Your task to perform on an android device: What's on my calendar tomorrow? Image 0: 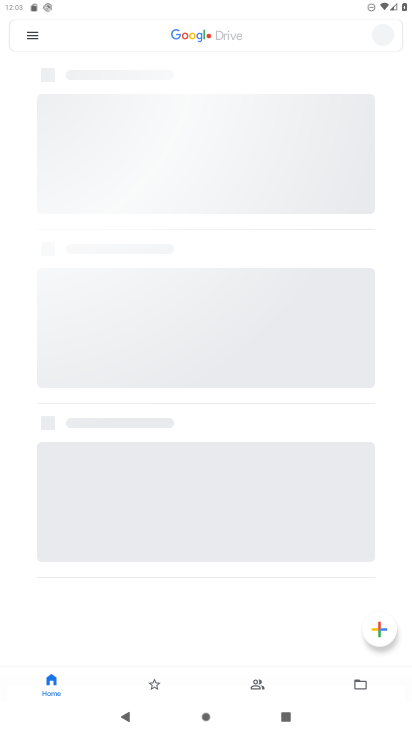
Step 0: drag from (187, 610) to (358, 2)
Your task to perform on an android device: What's on my calendar tomorrow? Image 1: 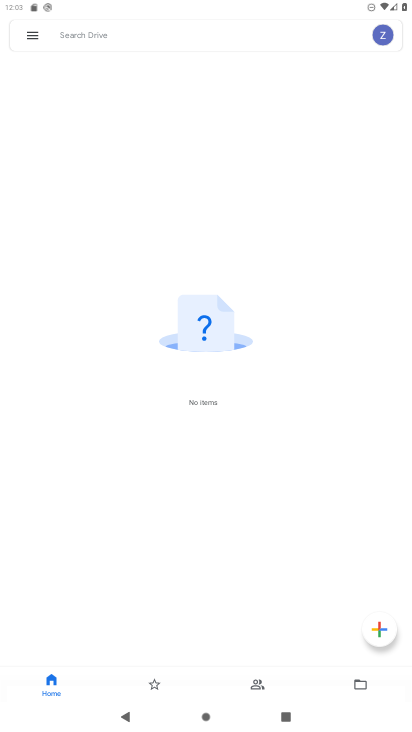
Step 1: press home button
Your task to perform on an android device: What's on my calendar tomorrow? Image 2: 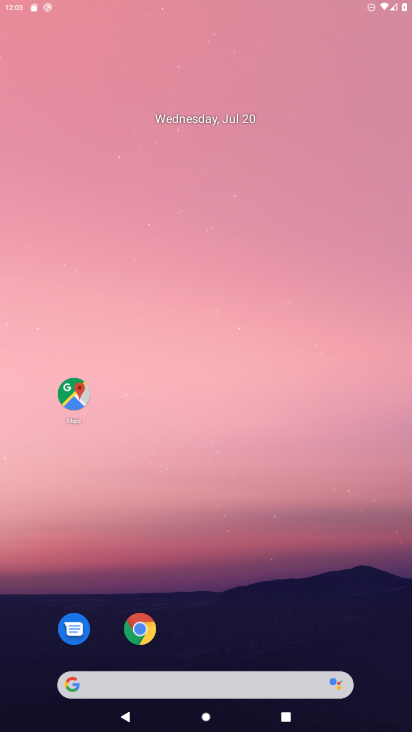
Step 2: drag from (210, 548) to (225, 28)
Your task to perform on an android device: What's on my calendar tomorrow? Image 3: 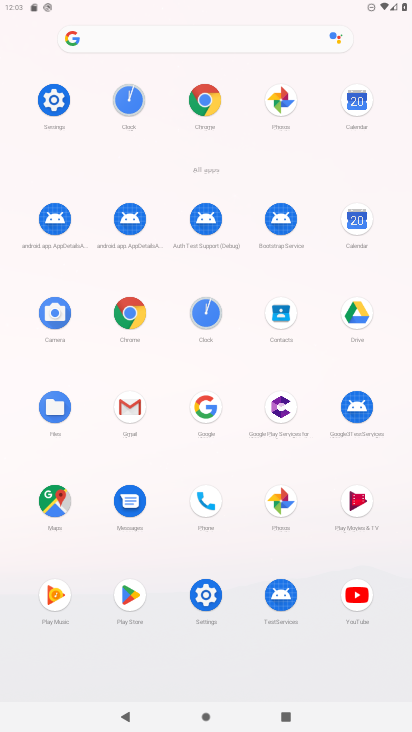
Step 3: click (354, 218)
Your task to perform on an android device: What's on my calendar tomorrow? Image 4: 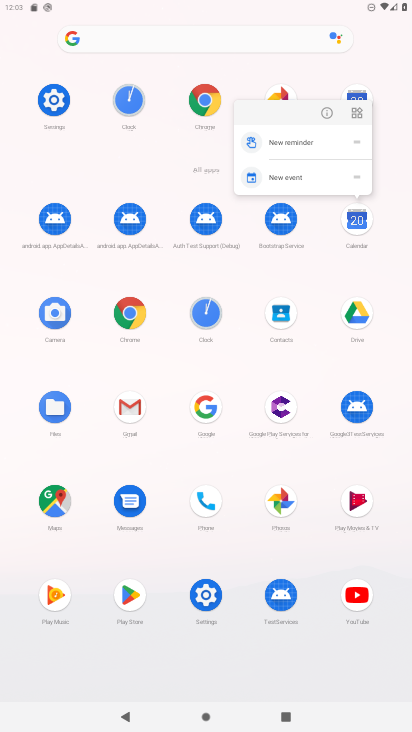
Step 4: click (318, 112)
Your task to perform on an android device: What's on my calendar tomorrow? Image 5: 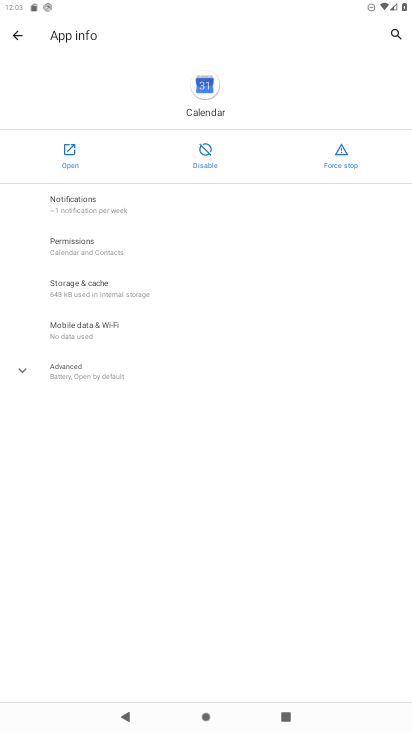
Step 5: click (75, 164)
Your task to perform on an android device: What's on my calendar tomorrow? Image 6: 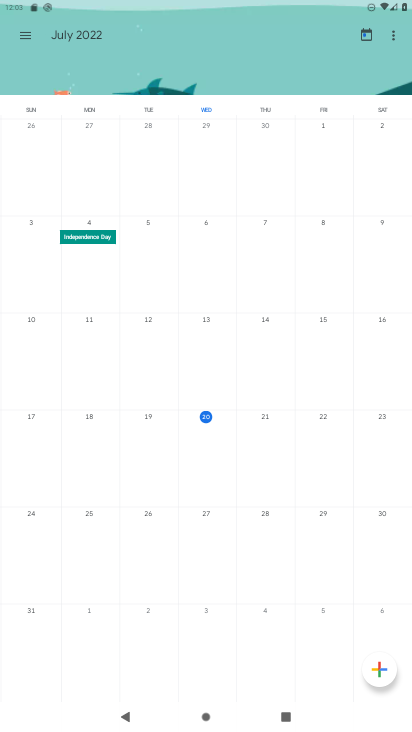
Step 6: click (366, 31)
Your task to perform on an android device: What's on my calendar tomorrow? Image 7: 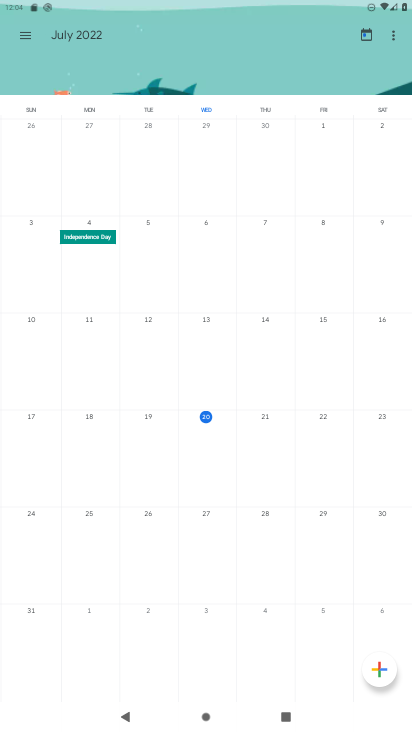
Step 7: click (263, 409)
Your task to perform on an android device: What's on my calendar tomorrow? Image 8: 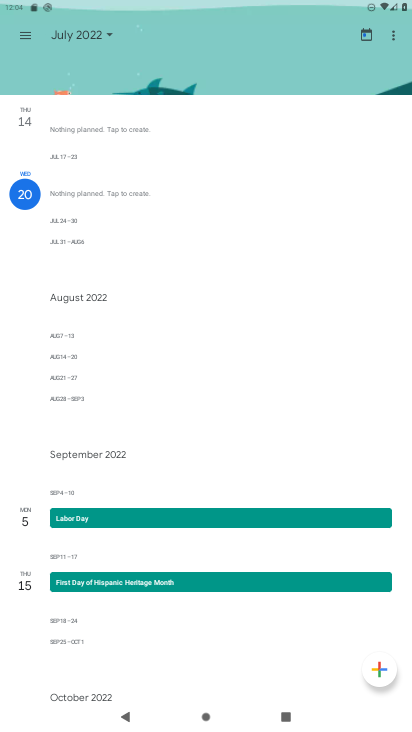
Step 8: task complete